Your task to perform on an android device: Open Reddit.com Image 0: 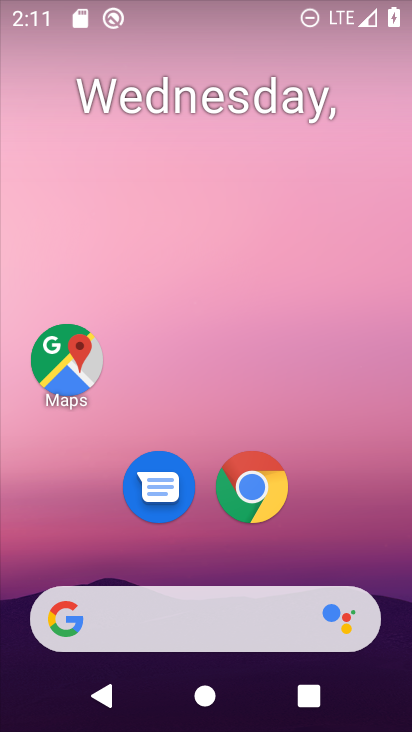
Step 0: drag from (242, 118) to (224, 74)
Your task to perform on an android device: Open Reddit.com Image 1: 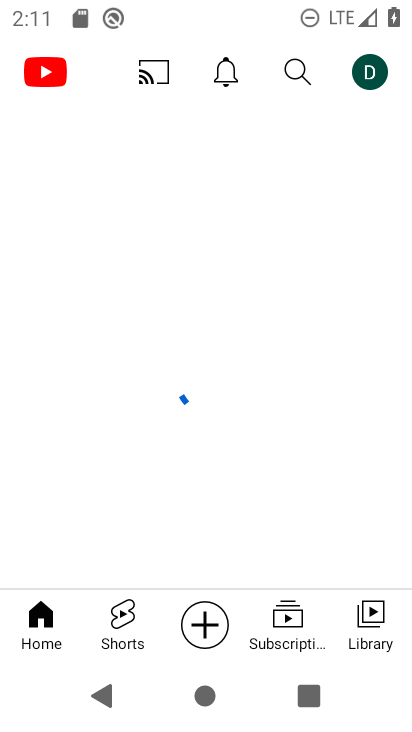
Step 1: press home button
Your task to perform on an android device: Open Reddit.com Image 2: 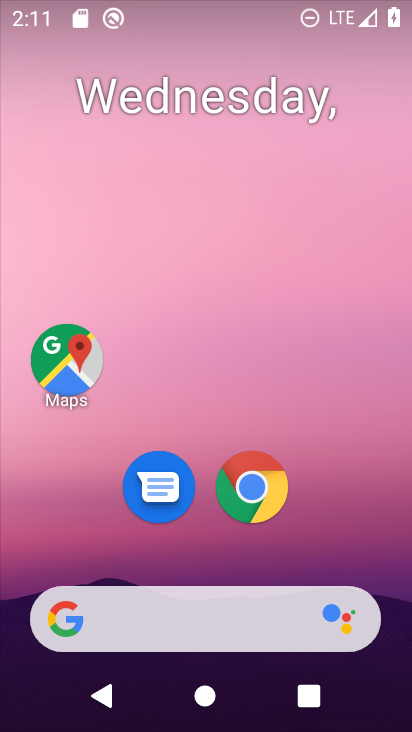
Step 2: drag from (397, 611) to (237, 53)
Your task to perform on an android device: Open Reddit.com Image 3: 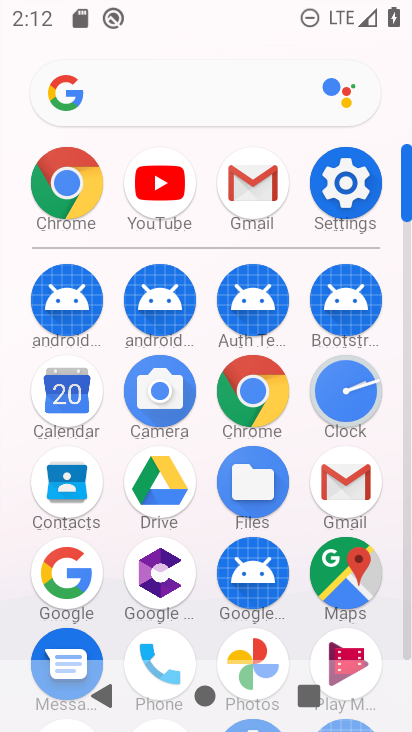
Step 3: click (47, 186)
Your task to perform on an android device: Open Reddit.com Image 4: 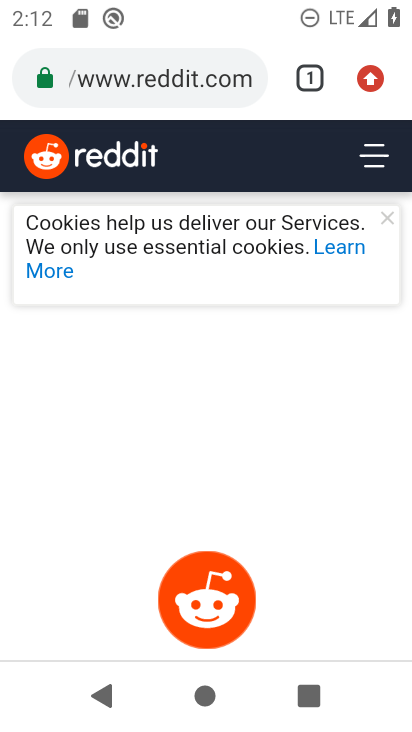
Step 4: task complete